Your task to perform on an android device: Go to network settings Image 0: 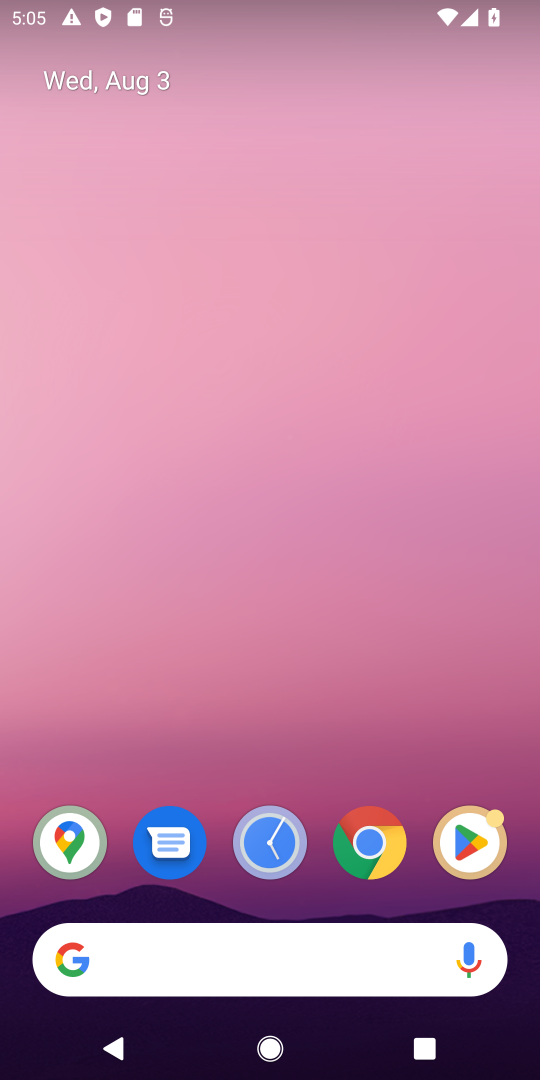
Step 0: drag from (169, 417) to (367, 0)
Your task to perform on an android device: Go to network settings Image 1: 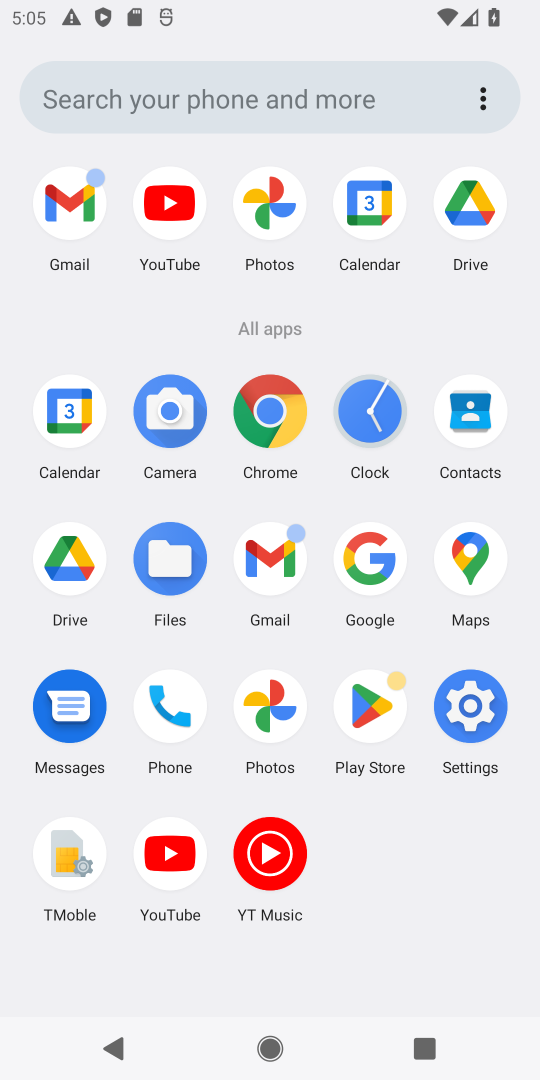
Step 1: click (470, 695)
Your task to perform on an android device: Go to network settings Image 2: 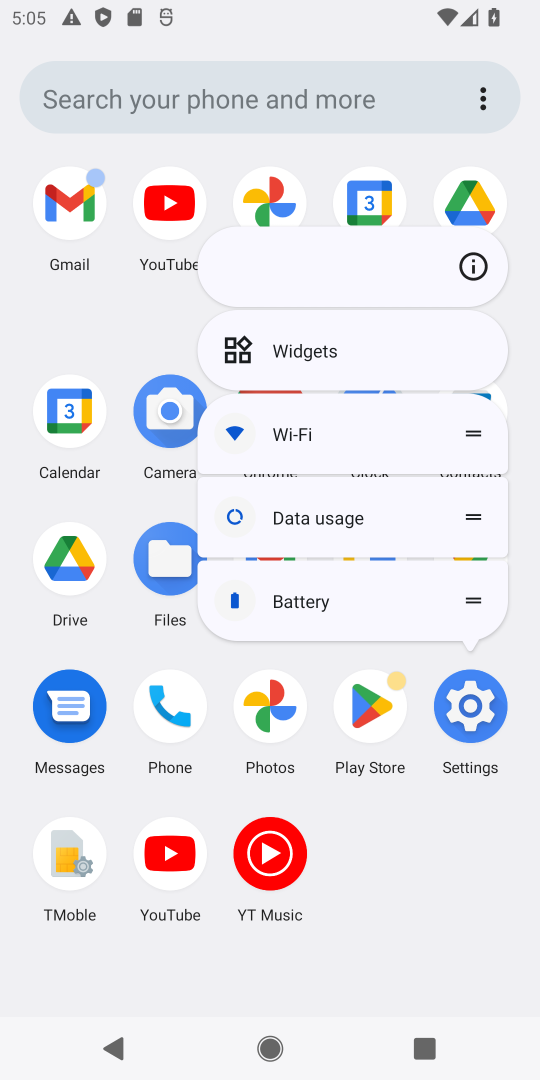
Step 2: click (477, 730)
Your task to perform on an android device: Go to network settings Image 3: 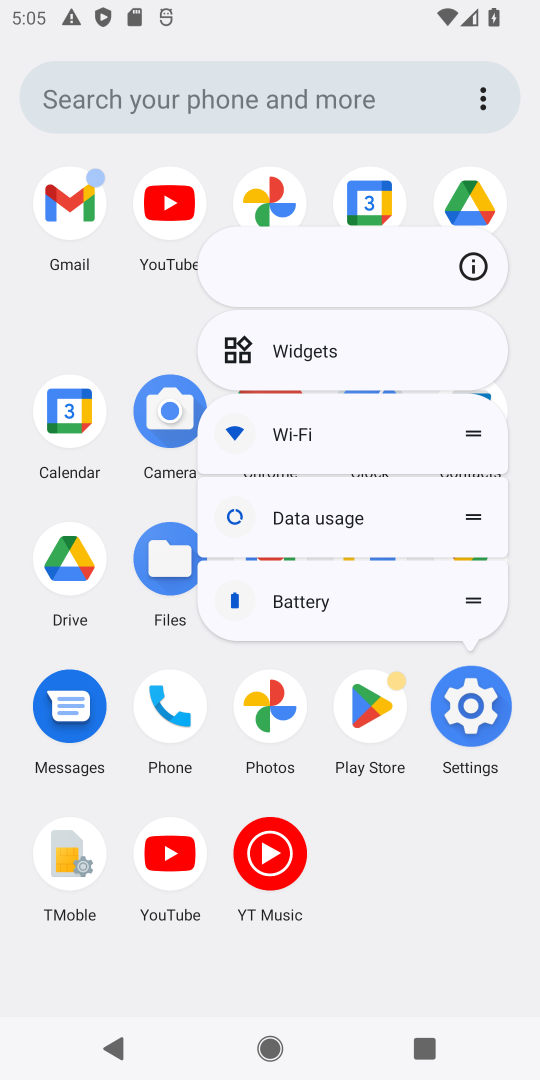
Step 3: click (477, 730)
Your task to perform on an android device: Go to network settings Image 4: 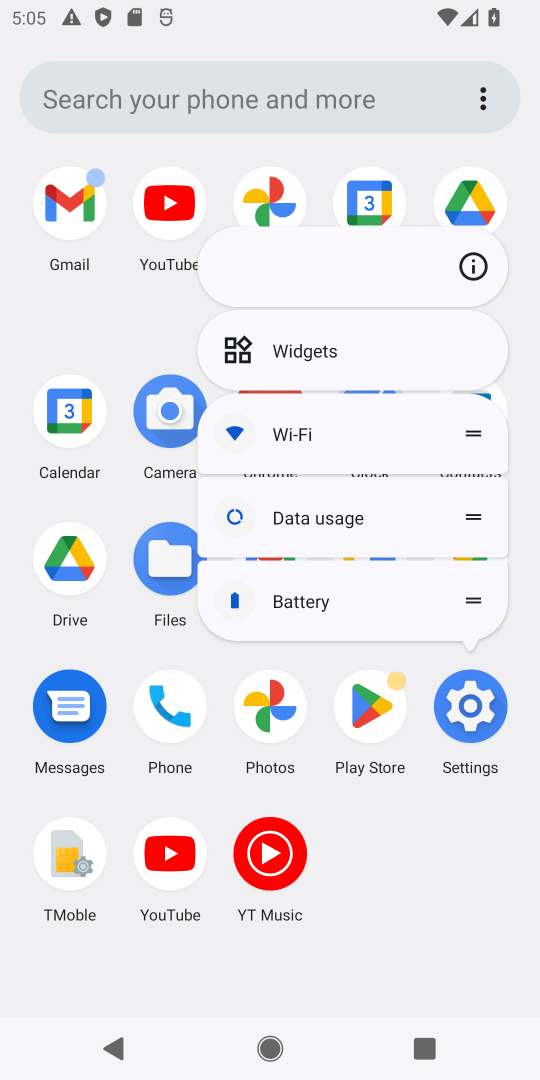
Step 4: click (477, 736)
Your task to perform on an android device: Go to network settings Image 5: 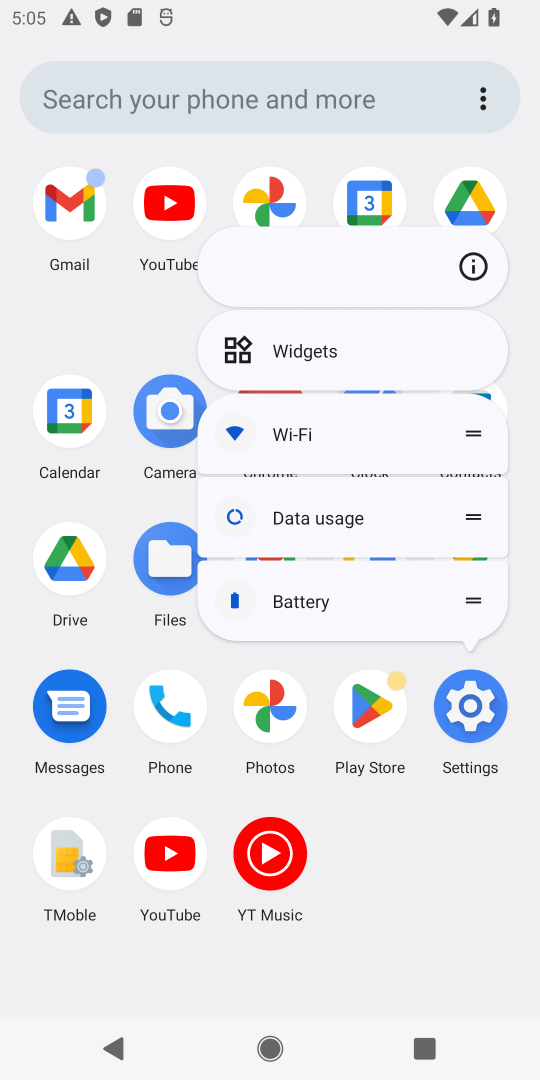
Step 5: click (474, 772)
Your task to perform on an android device: Go to network settings Image 6: 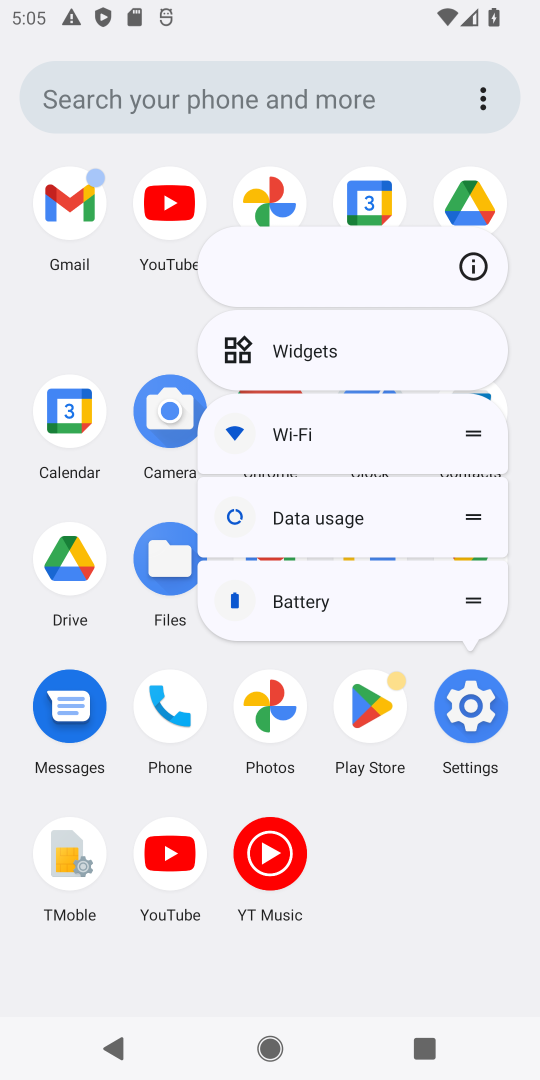
Step 6: click (474, 772)
Your task to perform on an android device: Go to network settings Image 7: 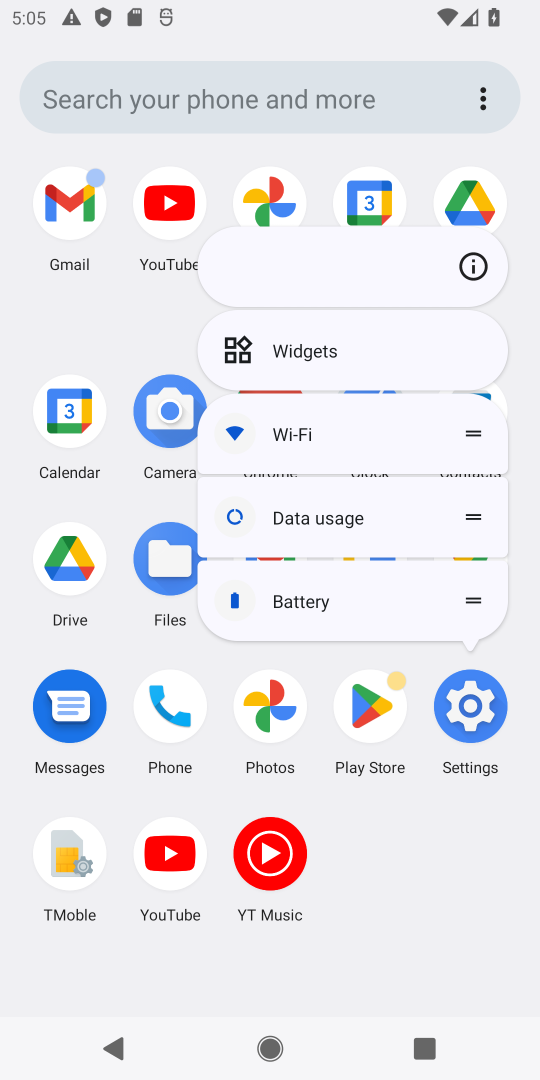
Step 7: click (505, 733)
Your task to perform on an android device: Go to network settings Image 8: 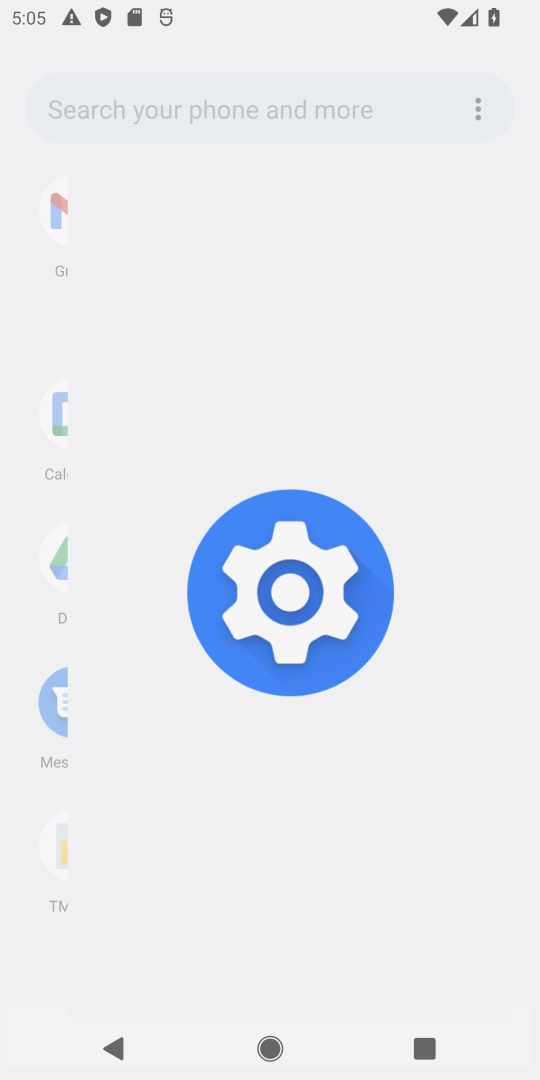
Step 8: click (460, 718)
Your task to perform on an android device: Go to network settings Image 9: 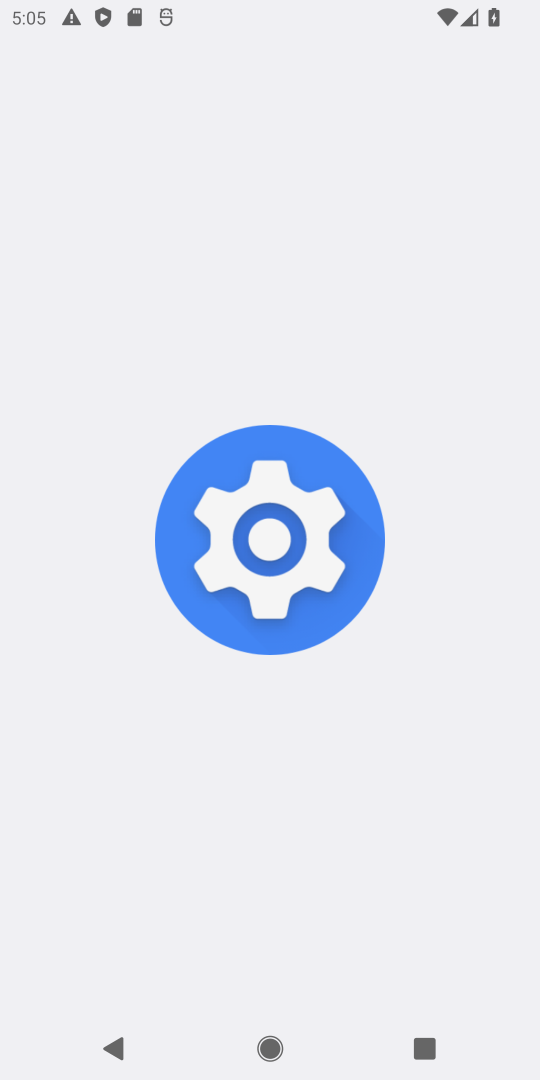
Step 9: click (460, 718)
Your task to perform on an android device: Go to network settings Image 10: 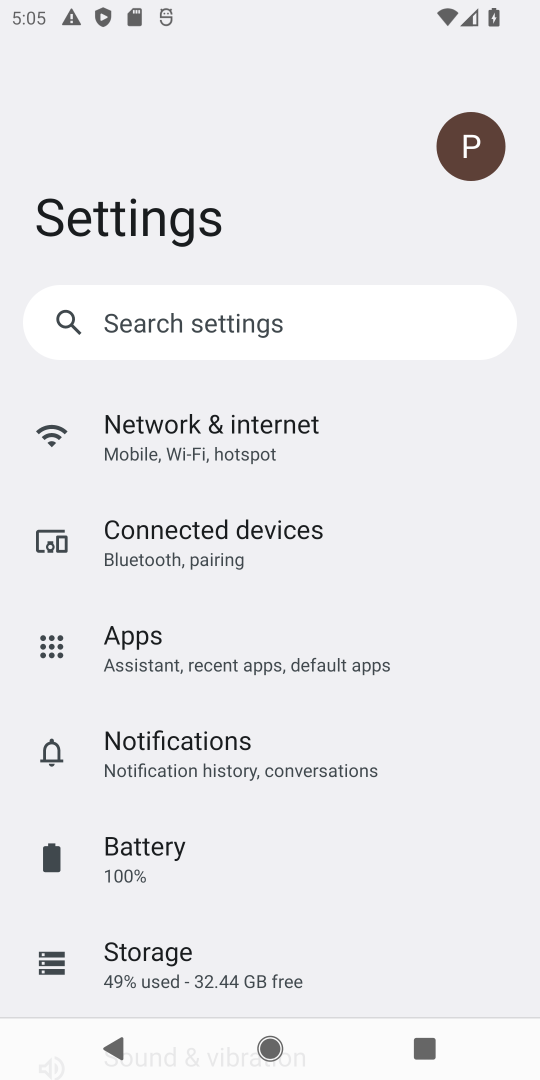
Step 10: click (247, 423)
Your task to perform on an android device: Go to network settings Image 11: 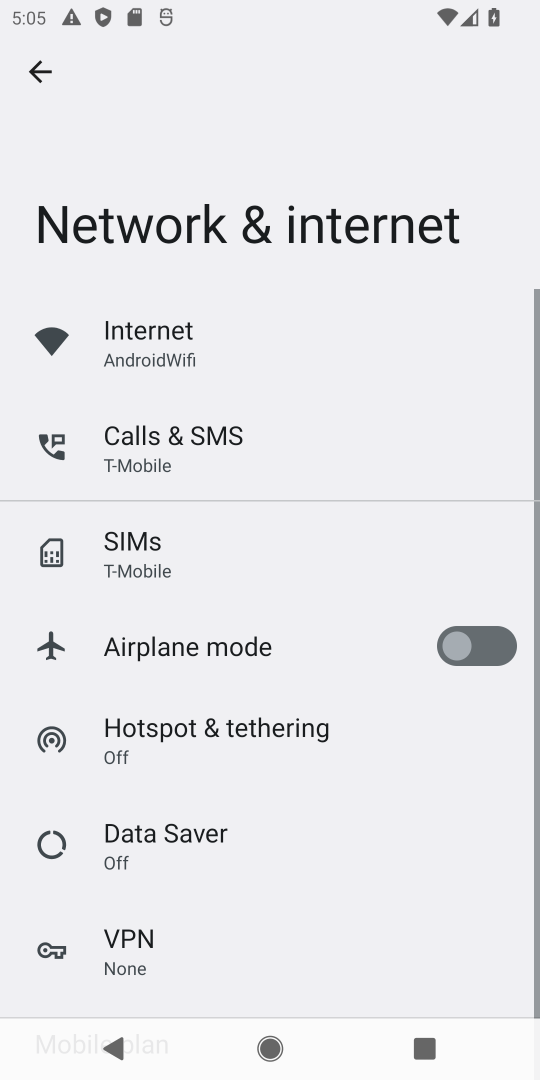
Step 11: task complete